Your task to perform on an android device: Open CNN.com Image 0: 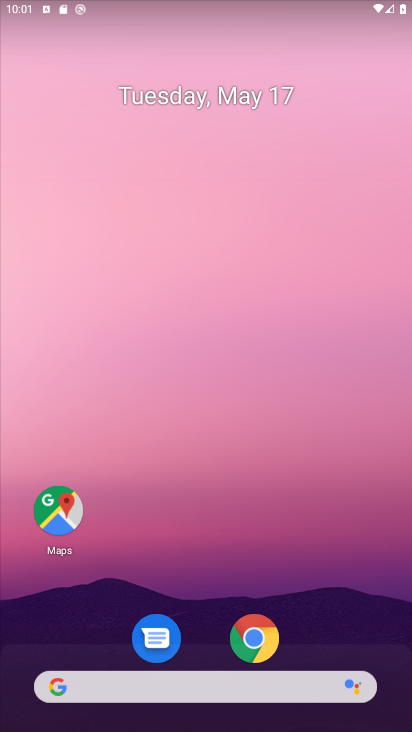
Step 0: click (259, 637)
Your task to perform on an android device: Open CNN.com Image 1: 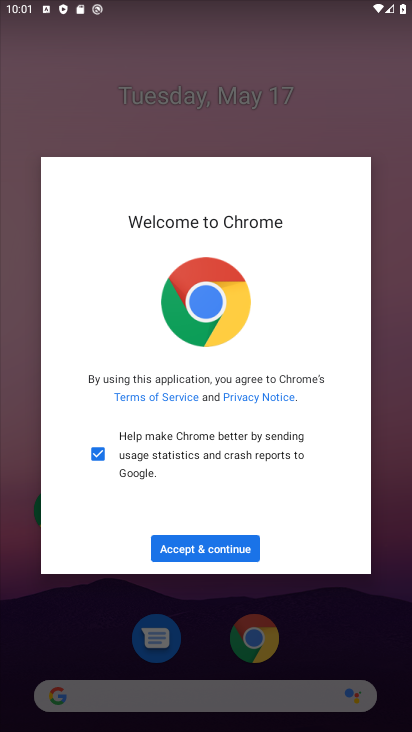
Step 1: click (223, 549)
Your task to perform on an android device: Open CNN.com Image 2: 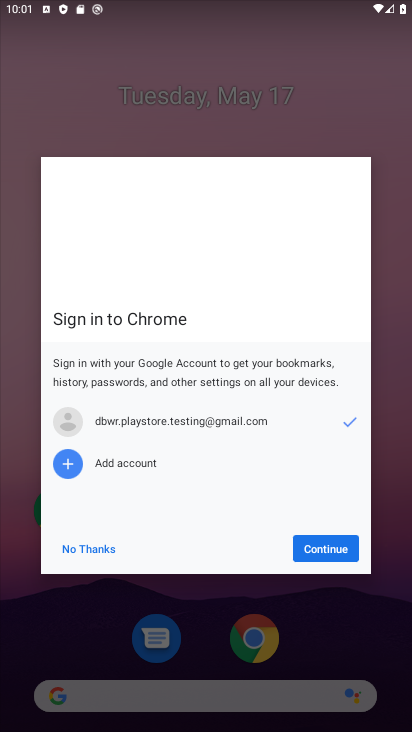
Step 2: click (334, 547)
Your task to perform on an android device: Open CNN.com Image 3: 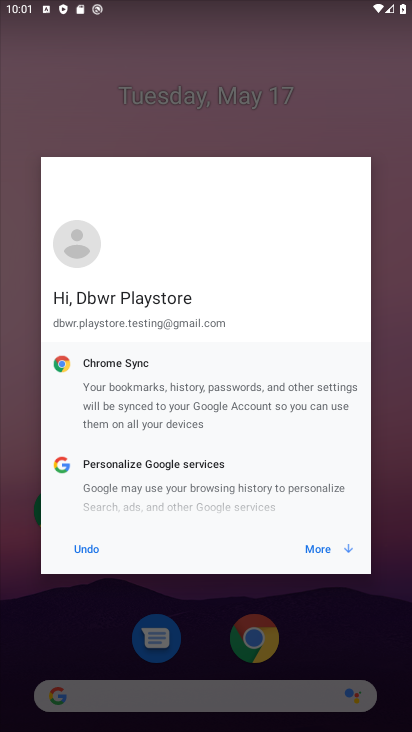
Step 3: click (334, 547)
Your task to perform on an android device: Open CNN.com Image 4: 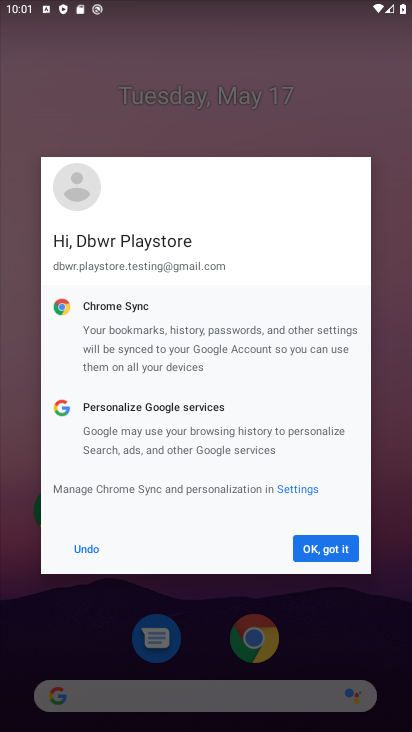
Step 4: click (334, 547)
Your task to perform on an android device: Open CNN.com Image 5: 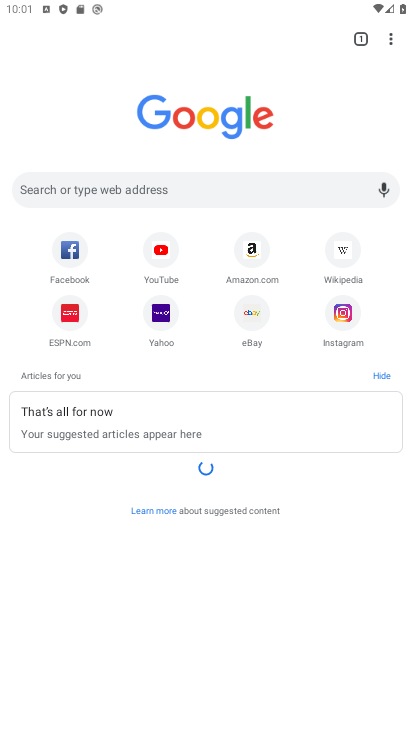
Step 5: click (50, 183)
Your task to perform on an android device: Open CNN.com Image 6: 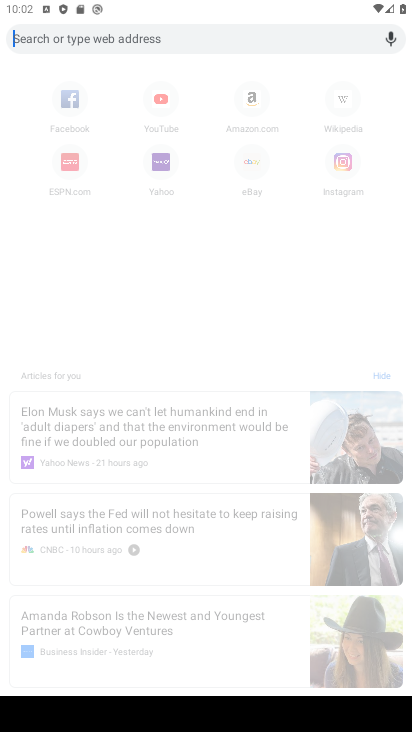
Step 6: type "cnn.com"
Your task to perform on an android device: Open CNN.com Image 7: 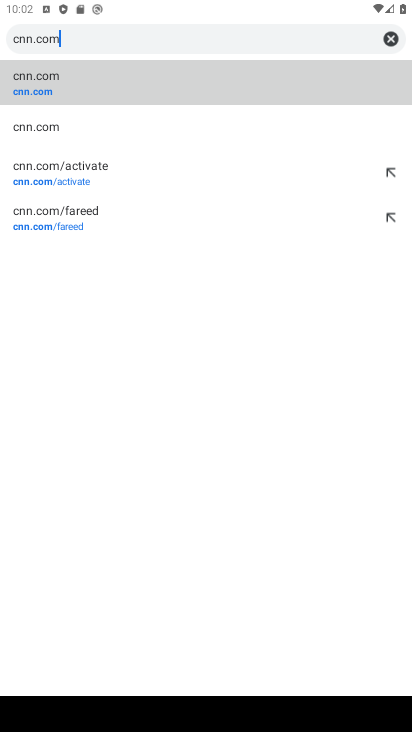
Step 7: click (34, 69)
Your task to perform on an android device: Open CNN.com Image 8: 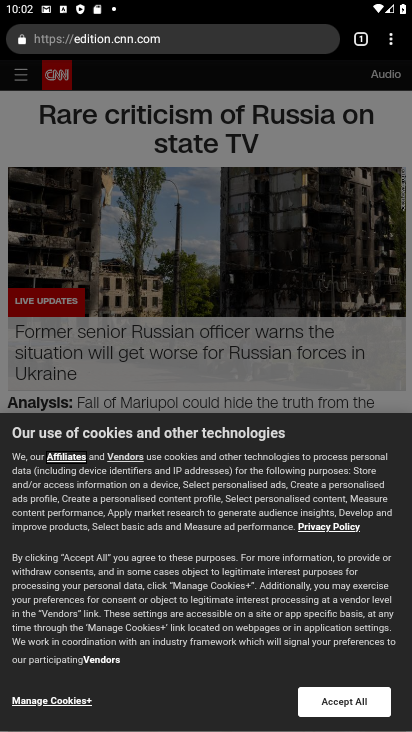
Step 8: task complete